Your task to perform on an android device: Go to settings Image 0: 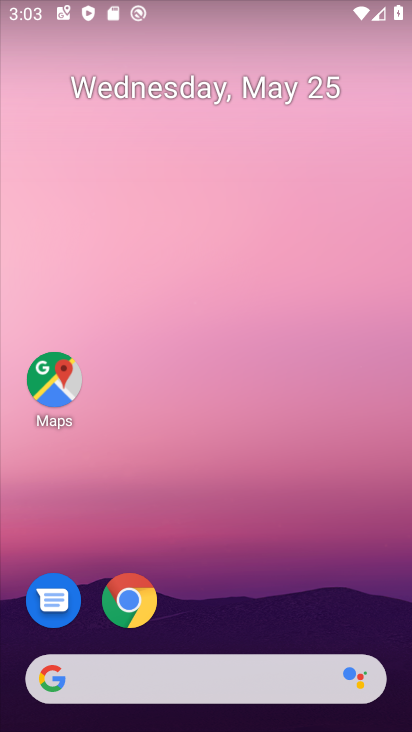
Step 0: press home button
Your task to perform on an android device: Go to settings Image 1: 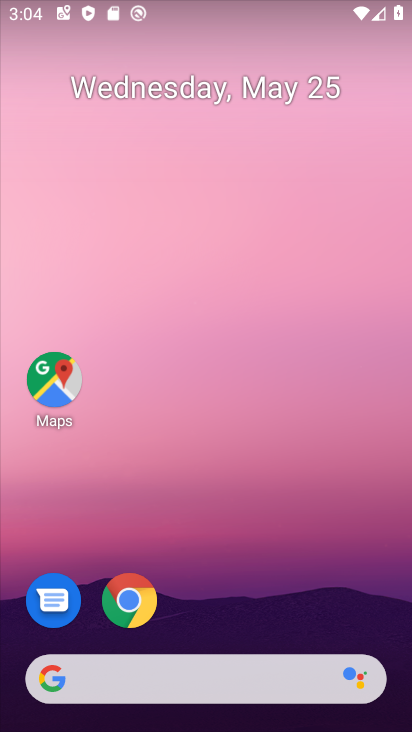
Step 1: drag from (31, 597) to (246, 210)
Your task to perform on an android device: Go to settings Image 2: 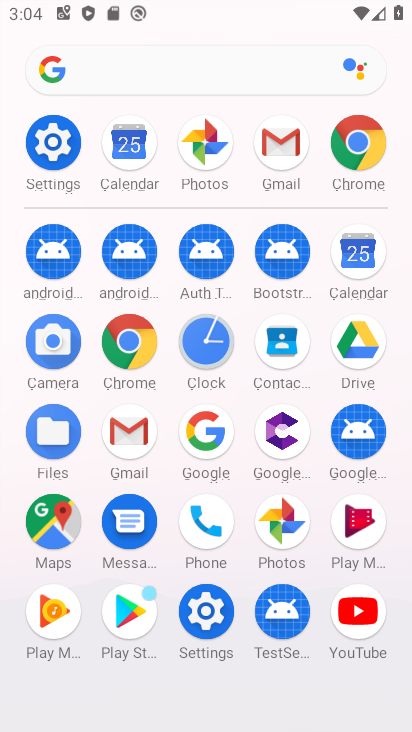
Step 2: click (39, 149)
Your task to perform on an android device: Go to settings Image 3: 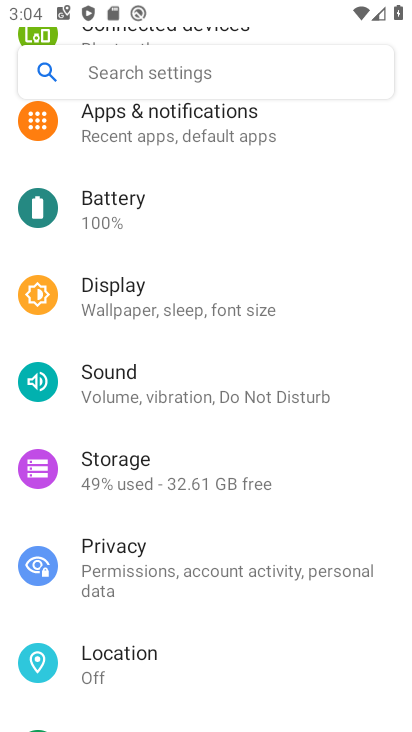
Step 3: task complete